Your task to perform on an android device: open a new tab in the chrome app Image 0: 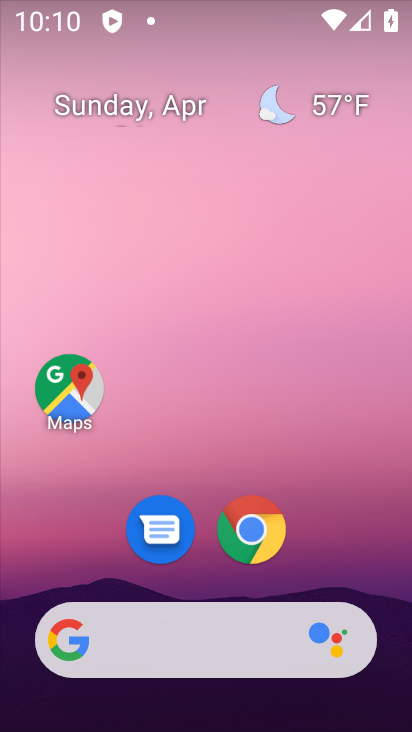
Step 0: click (247, 541)
Your task to perform on an android device: open a new tab in the chrome app Image 1: 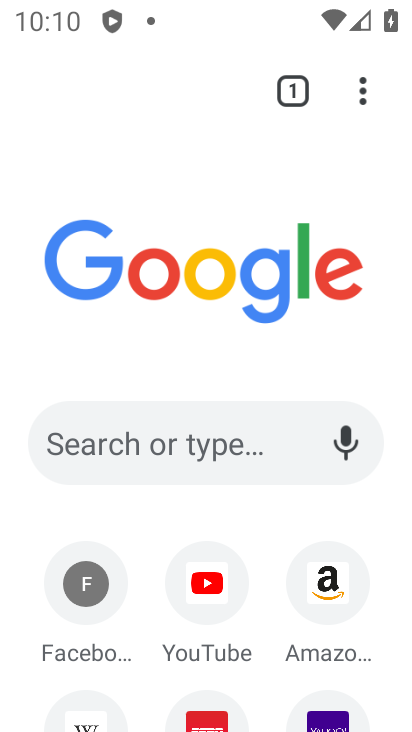
Step 1: click (285, 86)
Your task to perform on an android device: open a new tab in the chrome app Image 2: 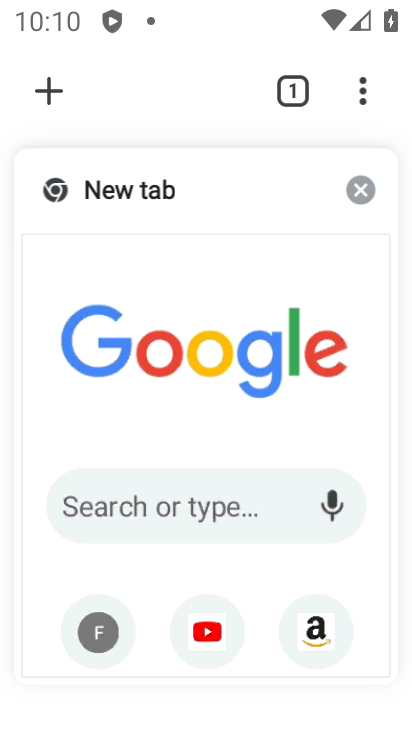
Step 2: click (39, 98)
Your task to perform on an android device: open a new tab in the chrome app Image 3: 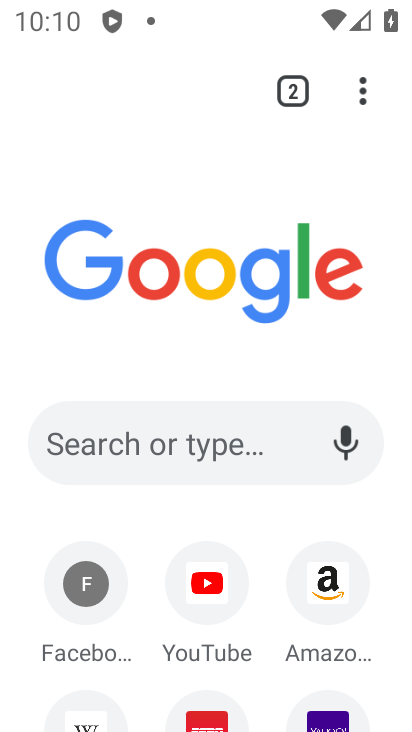
Step 3: task complete